Your task to perform on an android device: see creations saved in the google photos Image 0: 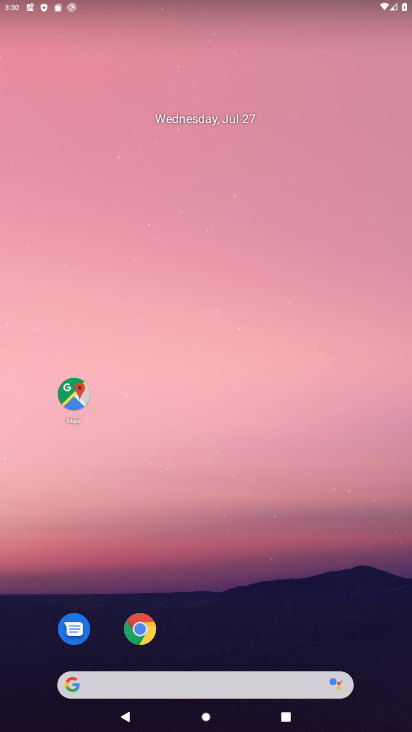
Step 0: drag from (318, 564) to (211, 7)
Your task to perform on an android device: see creations saved in the google photos Image 1: 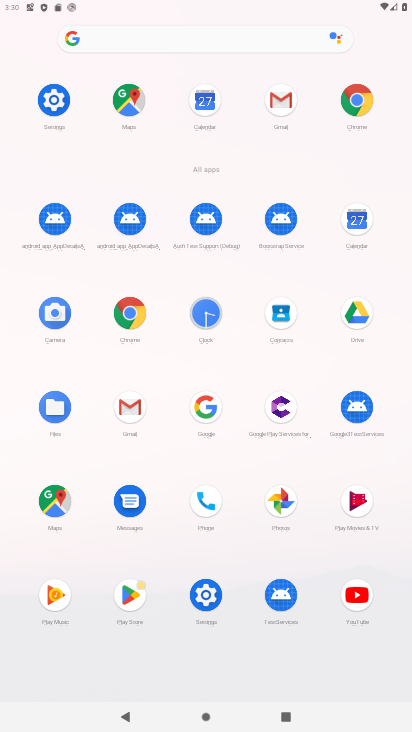
Step 1: click (288, 502)
Your task to perform on an android device: see creations saved in the google photos Image 2: 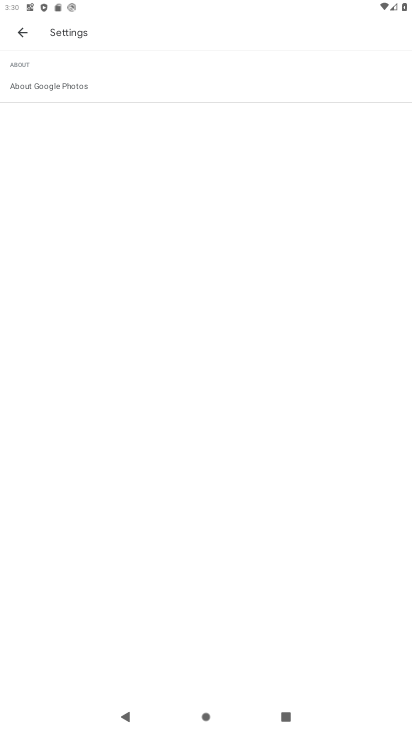
Step 2: click (29, 32)
Your task to perform on an android device: see creations saved in the google photos Image 3: 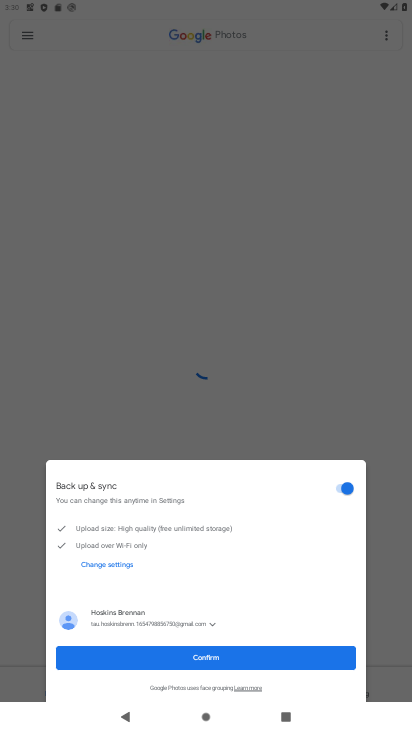
Step 3: click (236, 663)
Your task to perform on an android device: see creations saved in the google photos Image 4: 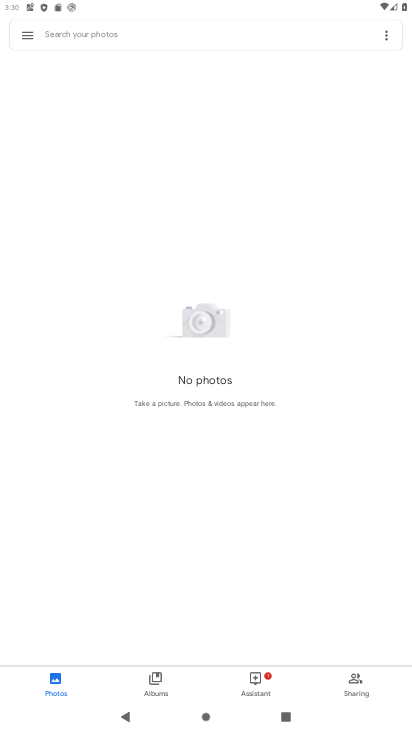
Step 4: click (256, 694)
Your task to perform on an android device: see creations saved in the google photos Image 5: 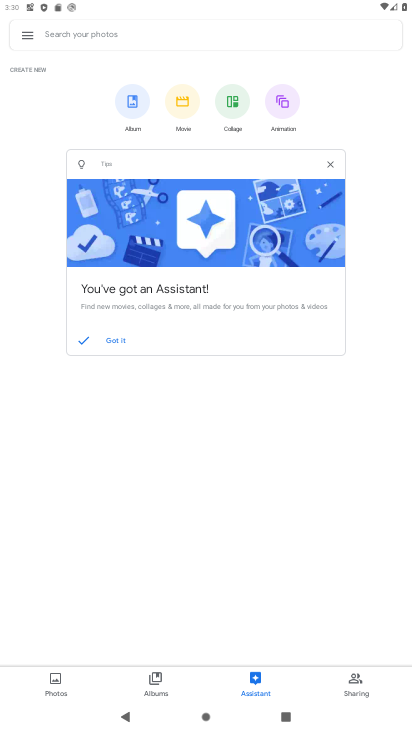
Step 5: task complete